Your task to perform on an android device: open app "LiveIn - Share Your Moment" Image 0: 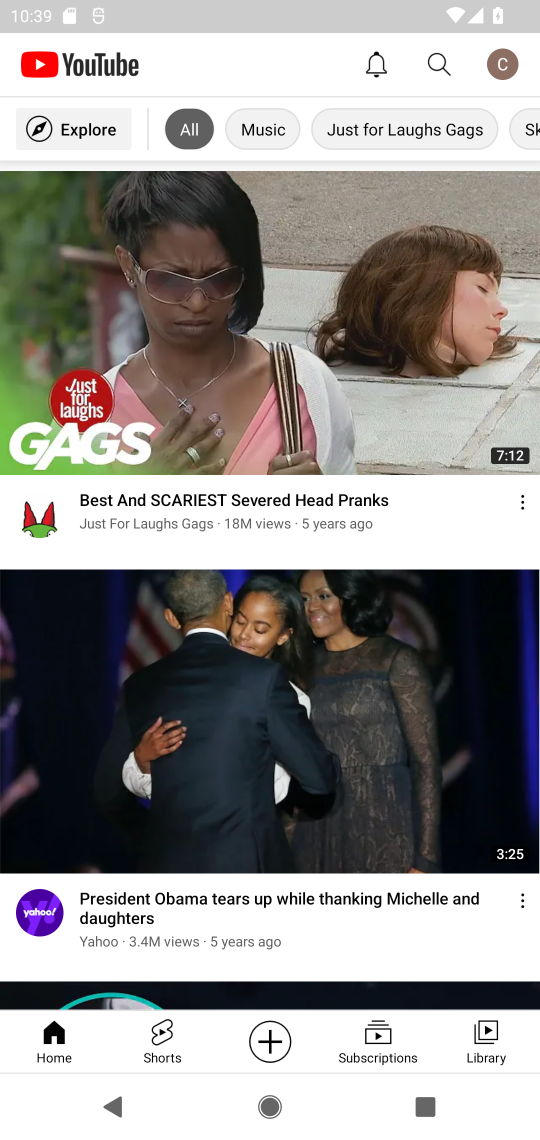
Step 0: press home button
Your task to perform on an android device: open app "LiveIn - Share Your Moment" Image 1: 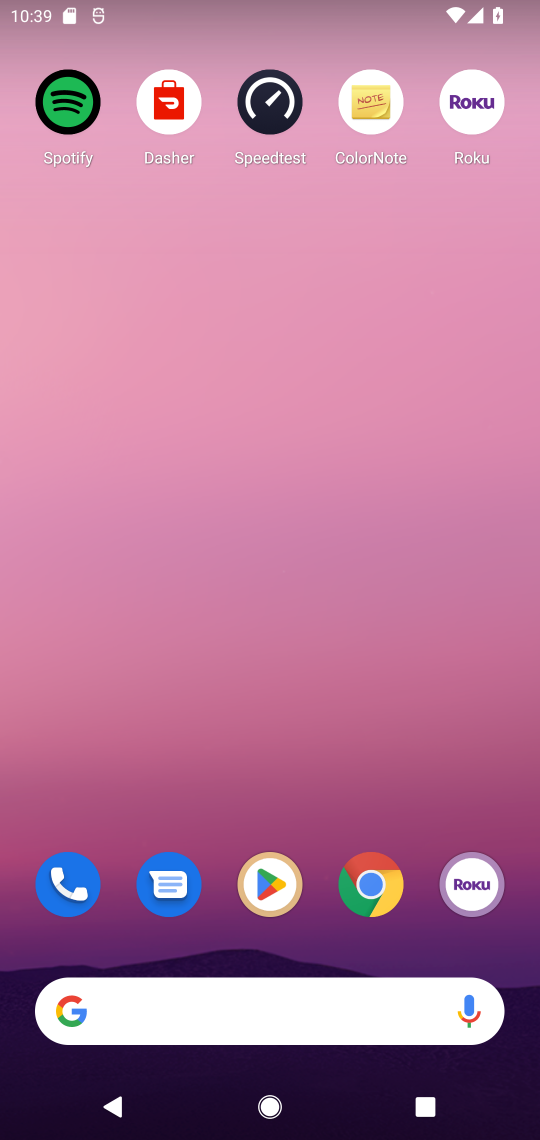
Step 1: click (274, 885)
Your task to perform on an android device: open app "LiveIn - Share Your Moment" Image 2: 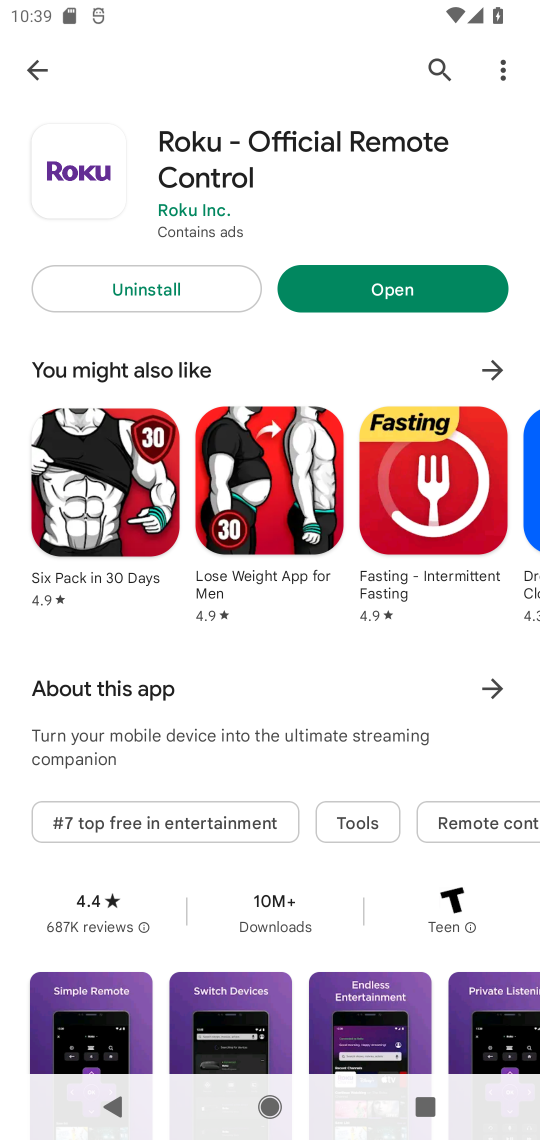
Step 2: click (427, 61)
Your task to perform on an android device: open app "LiveIn - Share Your Moment" Image 3: 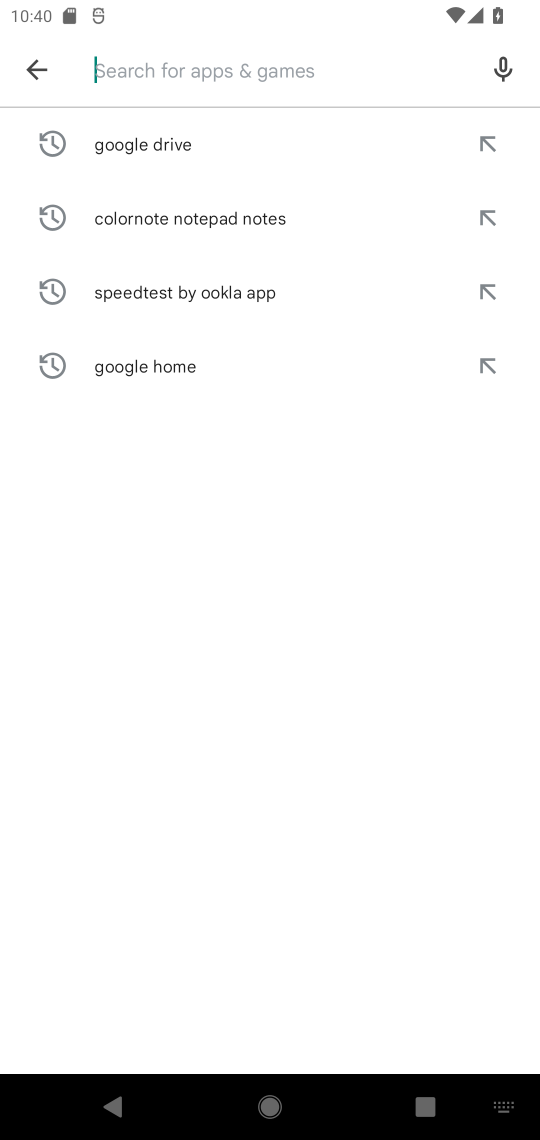
Step 3: type "LiveIn - Share Your Moment"
Your task to perform on an android device: open app "LiveIn - Share Your Moment" Image 4: 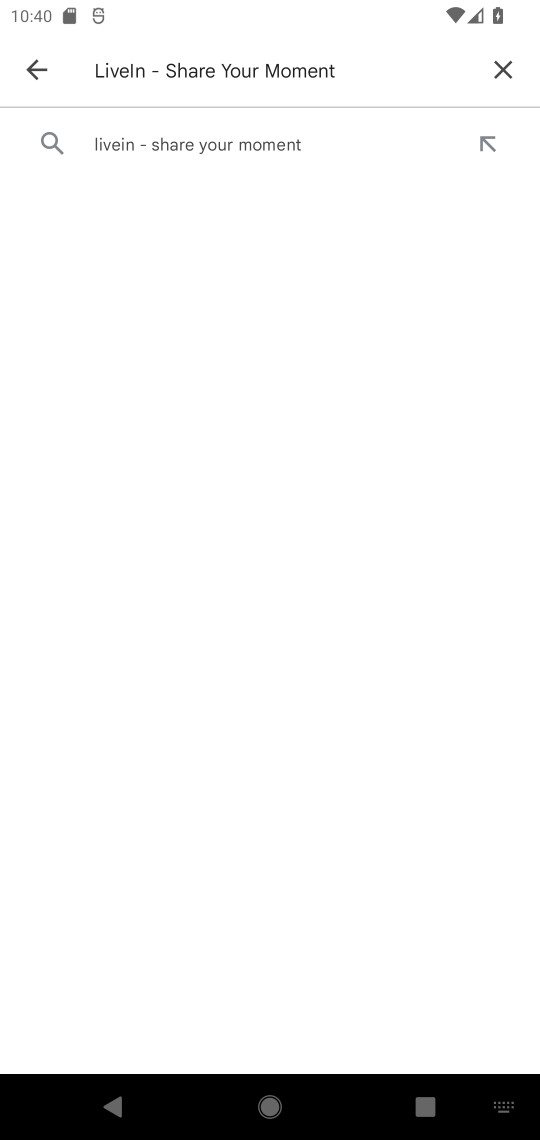
Step 4: click (203, 136)
Your task to perform on an android device: open app "LiveIn - Share Your Moment" Image 5: 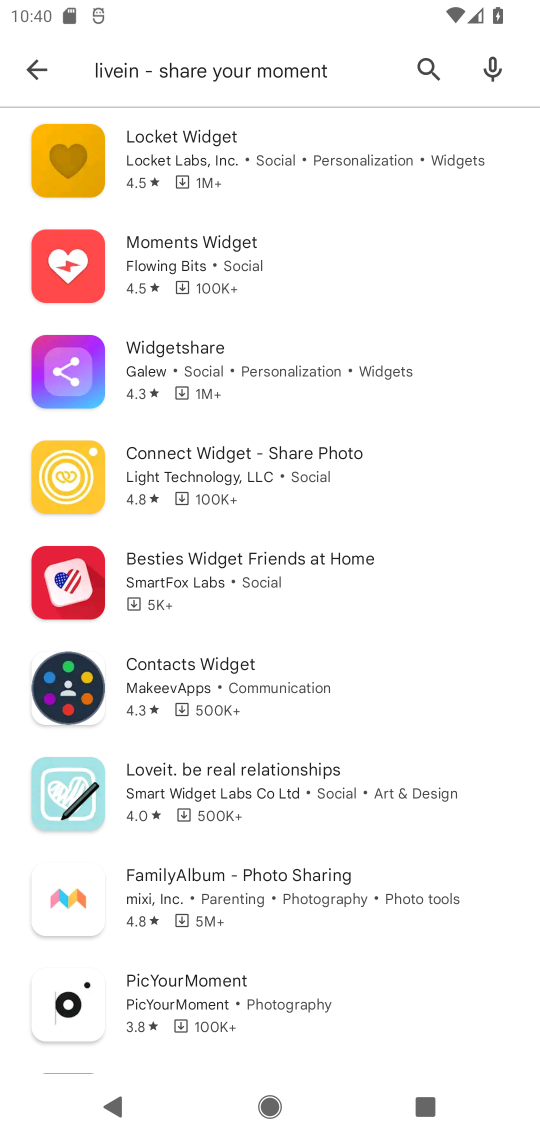
Step 5: task complete